Your task to perform on an android device: open app "Paramount+ | Peak Streaming" (install if not already installed) and enter user name: "fostered@yahoo.com" and password: "strong" Image 0: 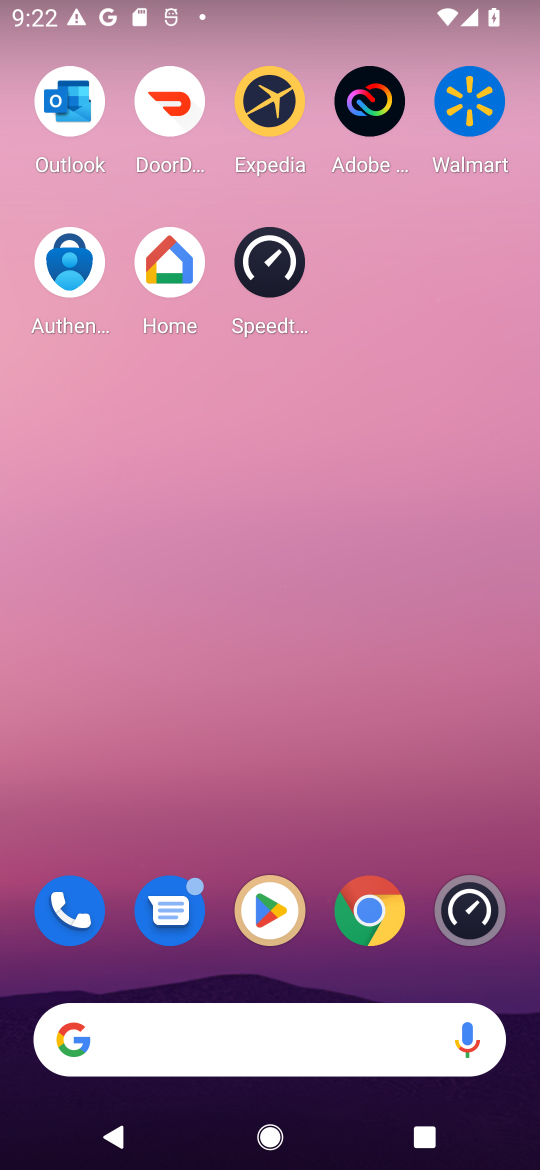
Step 0: click (276, 903)
Your task to perform on an android device: open app "Paramount+ | Peak Streaming" (install if not already installed) and enter user name: "fostered@yahoo.com" and password: "strong" Image 1: 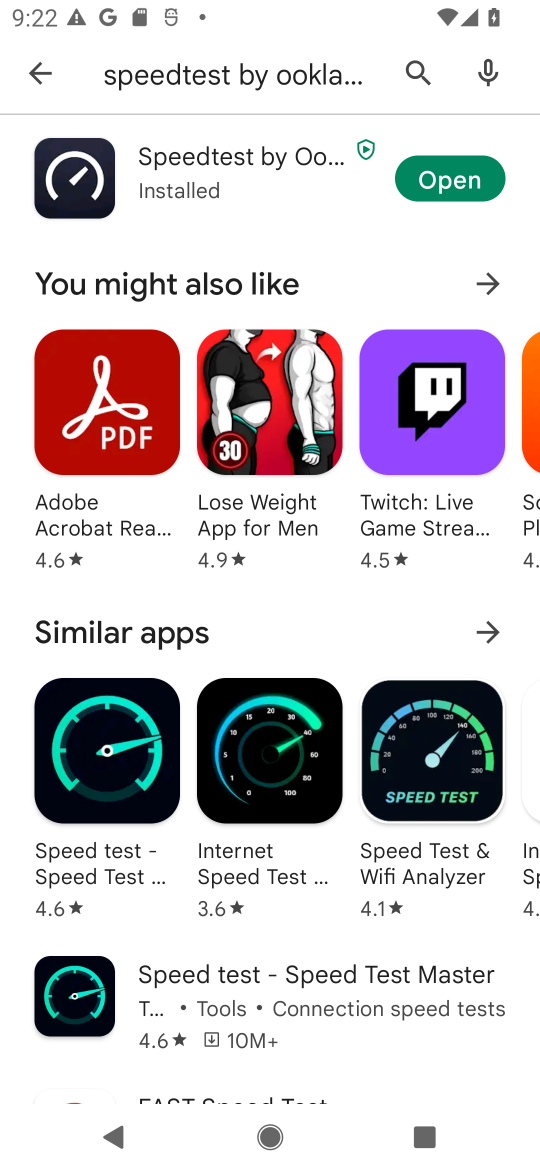
Step 1: click (416, 67)
Your task to perform on an android device: open app "Paramount+ | Peak Streaming" (install if not already installed) and enter user name: "fostered@yahoo.com" and password: "strong" Image 2: 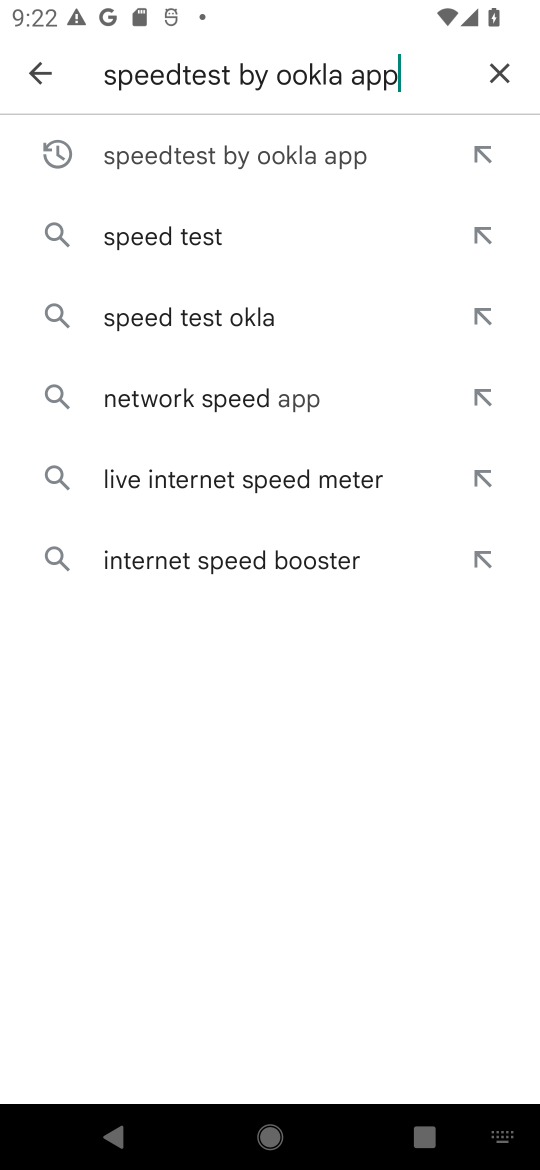
Step 2: click (502, 71)
Your task to perform on an android device: open app "Paramount+ | Peak Streaming" (install if not already installed) and enter user name: "fostered@yahoo.com" and password: "strong" Image 3: 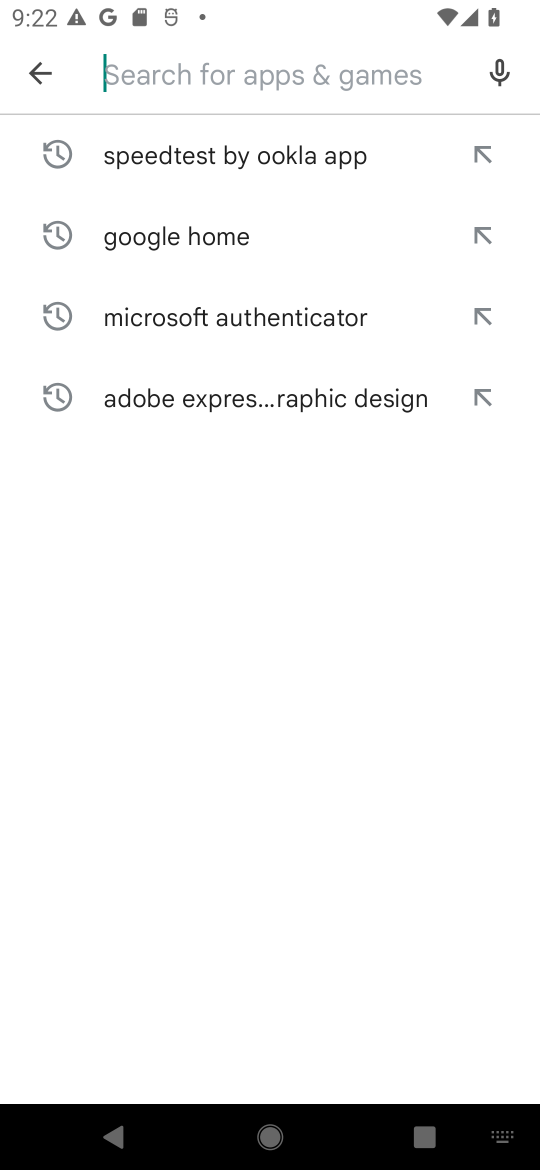
Step 3: type "Paramount+ | Peak Streaming"
Your task to perform on an android device: open app "Paramount+ | Peak Streaming" (install if not already installed) and enter user name: "fostered@yahoo.com" and password: "strong" Image 4: 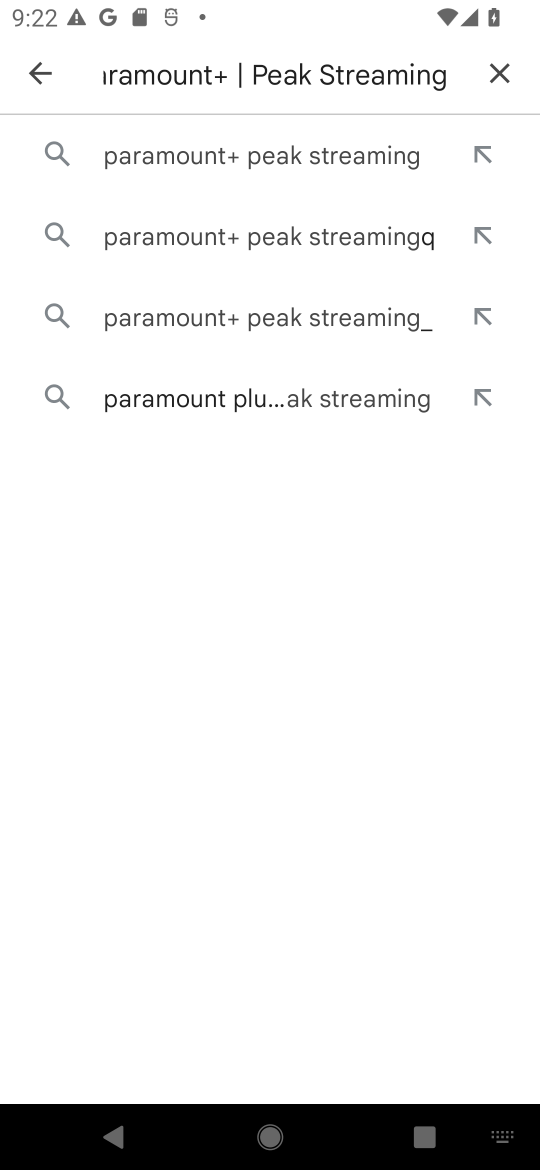
Step 4: click (213, 151)
Your task to perform on an android device: open app "Paramount+ | Peak Streaming" (install if not already installed) and enter user name: "fostered@yahoo.com" and password: "strong" Image 5: 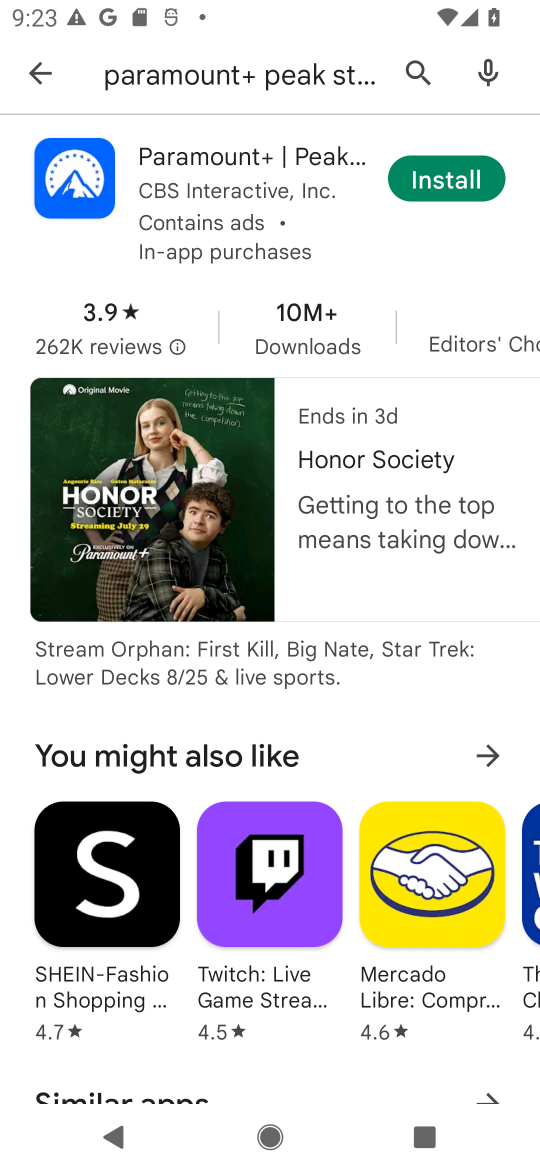
Step 5: click (441, 171)
Your task to perform on an android device: open app "Paramount+ | Peak Streaming" (install if not already installed) and enter user name: "fostered@yahoo.com" and password: "strong" Image 6: 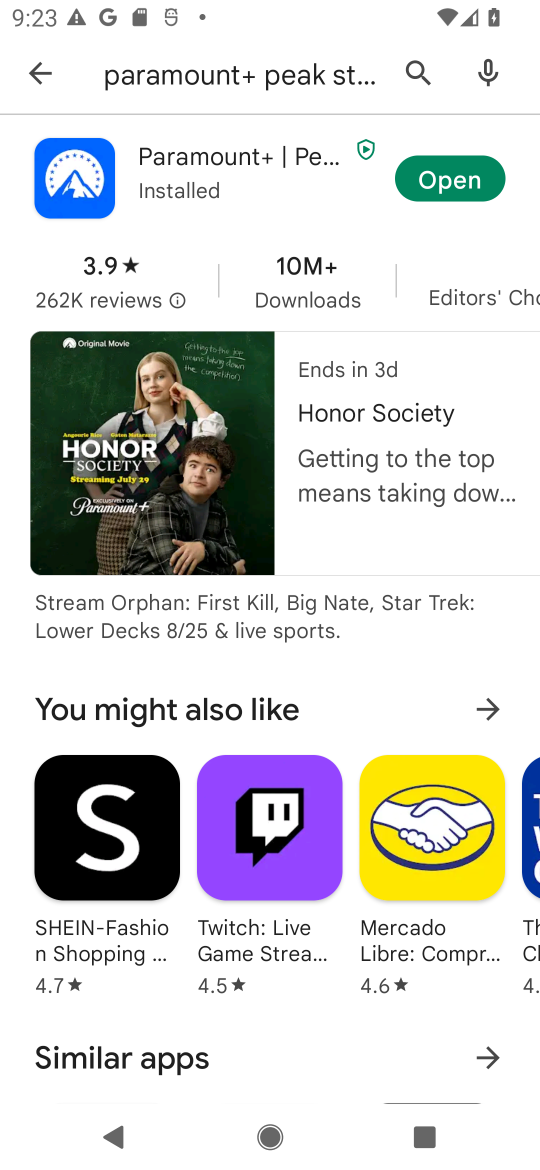
Step 6: click (433, 178)
Your task to perform on an android device: open app "Paramount+ | Peak Streaming" (install if not already installed) and enter user name: "fostered@yahoo.com" and password: "strong" Image 7: 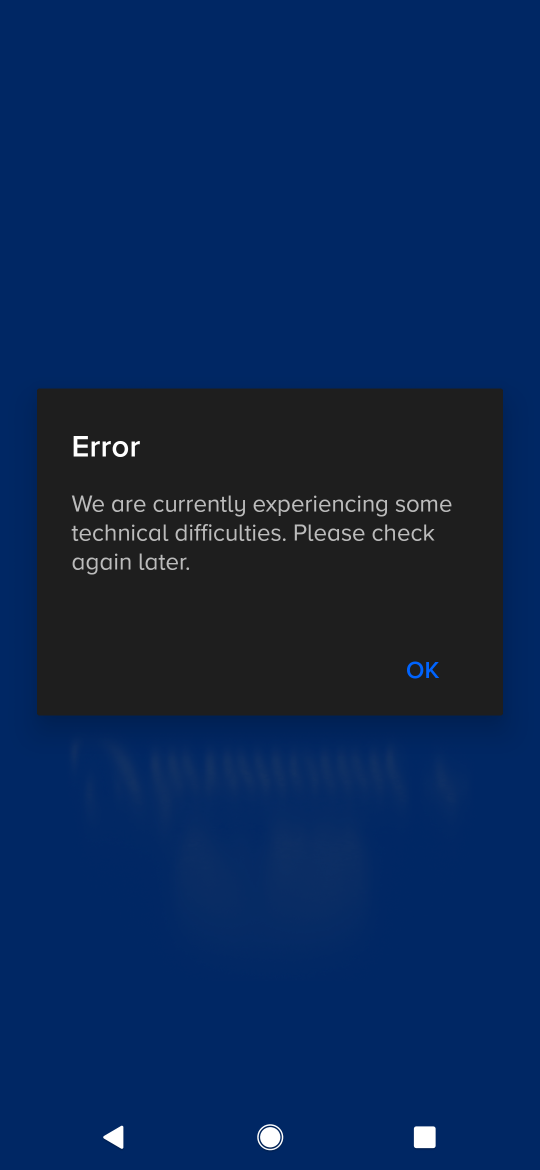
Step 7: task complete